Your task to perform on an android device: uninstall "Firefox Browser" Image 0: 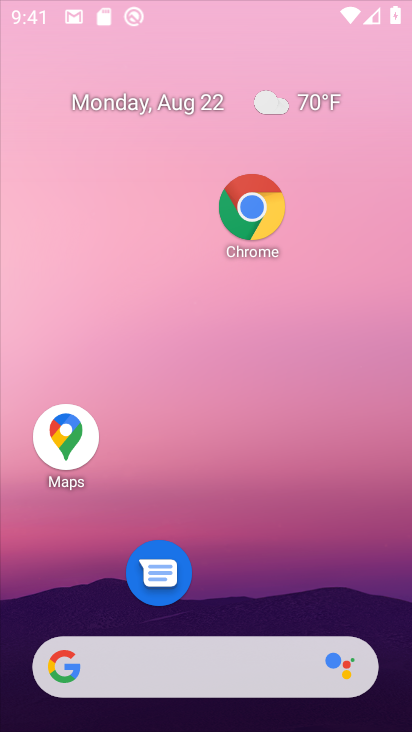
Step 0: drag from (297, 499) to (310, 288)
Your task to perform on an android device: uninstall "Firefox Browser" Image 1: 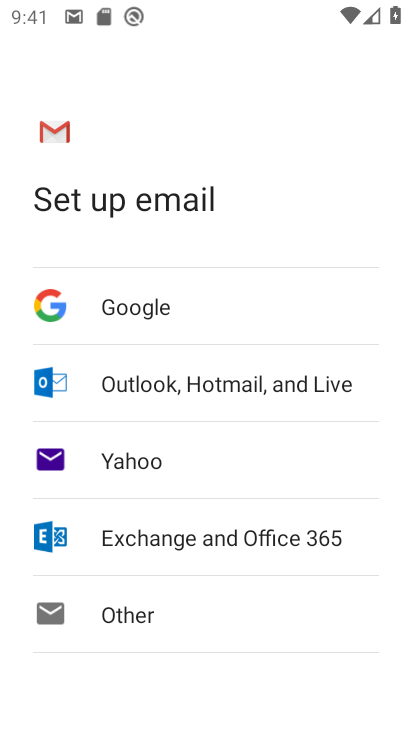
Step 1: press home button
Your task to perform on an android device: uninstall "Firefox Browser" Image 2: 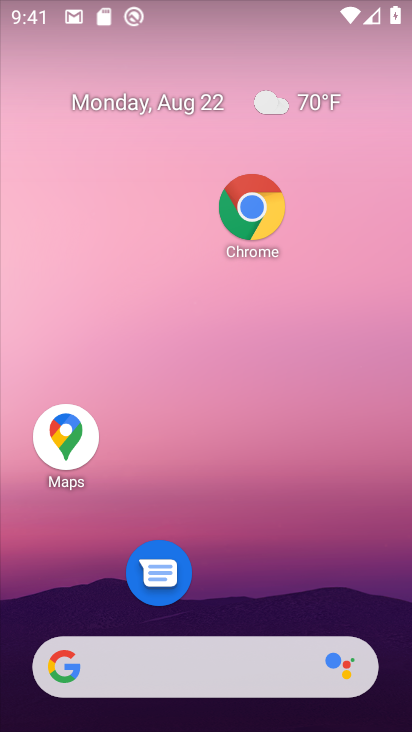
Step 2: drag from (262, 540) to (266, 126)
Your task to perform on an android device: uninstall "Firefox Browser" Image 3: 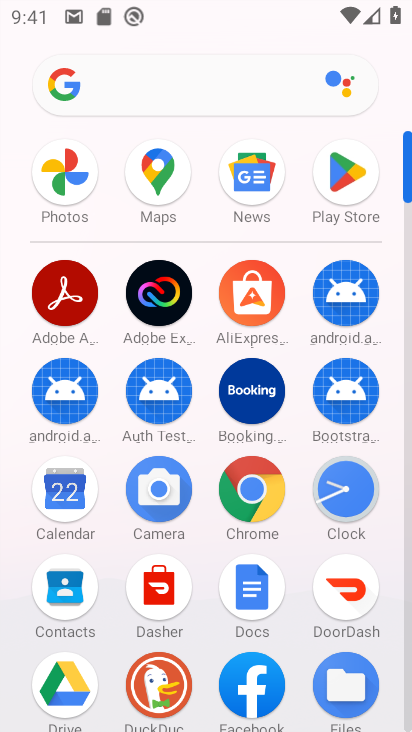
Step 3: click (345, 193)
Your task to perform on an android device: uninstall "Firefox Browser" Image 4: 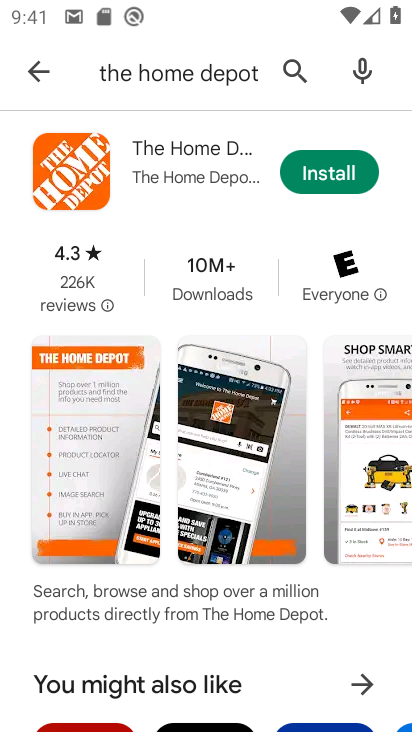
Step 4: click (197, 79)
Your task to perform on an android device: uninstall "Firefox Browser" Image 5: 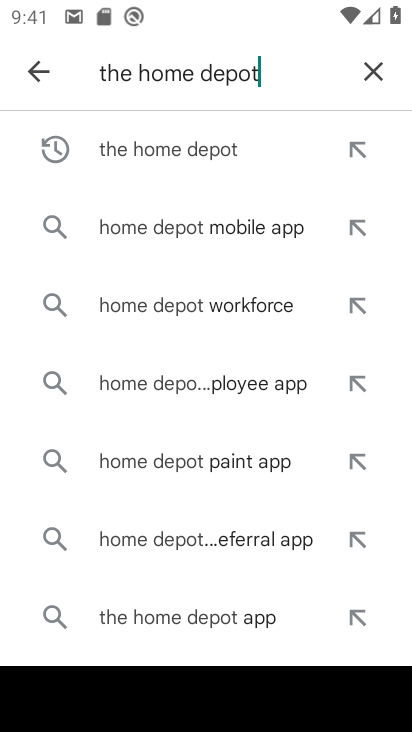
Step 5: click (365, 70)
Your task to perform on an android device: uninstall "Firefox Browser" Image 6: 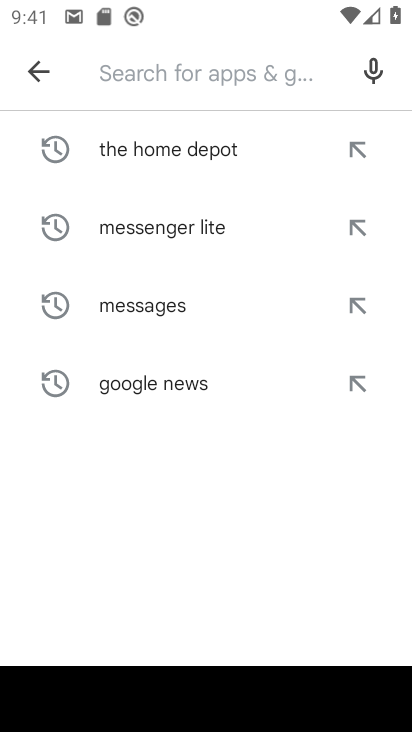
Step 6: type "firefox browser"
Your task to perform on an android device: uninstall "Firefox Browser" Image 7: 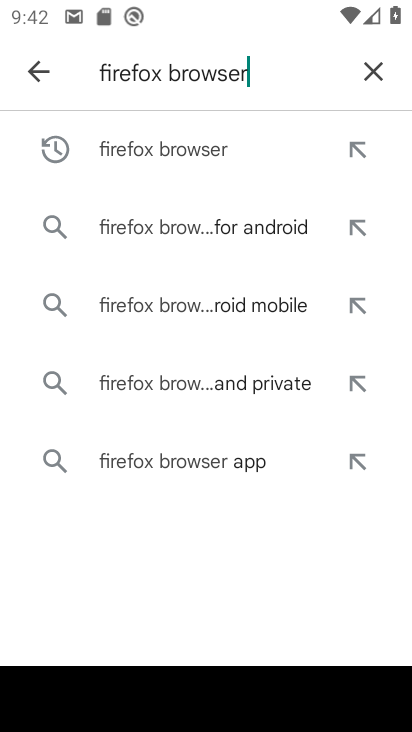
Step 7: click (164, 144)
Your task to perform on an android device: uninstall "Firefox Browser" Image 8: 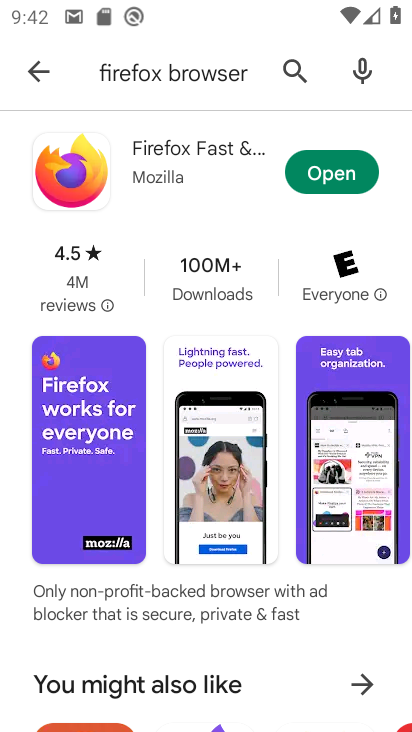
Step 8: click (90, 153)
Your task to perform on an android device: uninstall "Firefox Browser" Image 9: 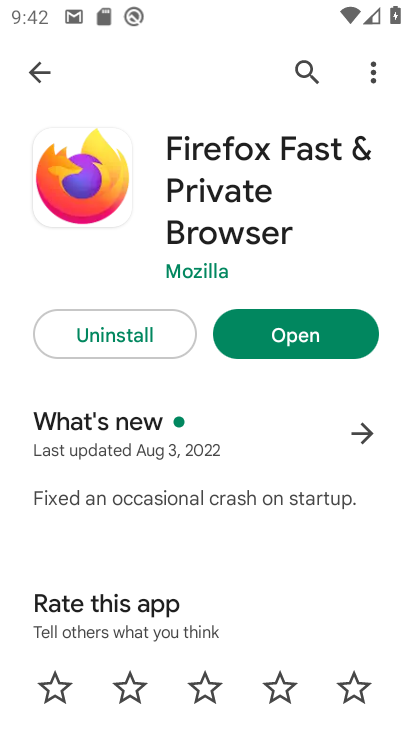
Step 9: click (133, 331)
Your task to perform on an android device: uninstall "Firefox Browser" Image 10: 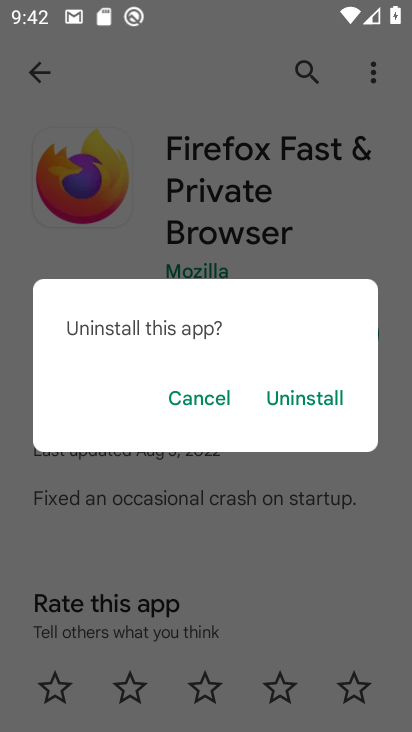
Step 10: click (309, 398)
Your task to perform on an android device: uninstall "Firefox Browser" Image 11: 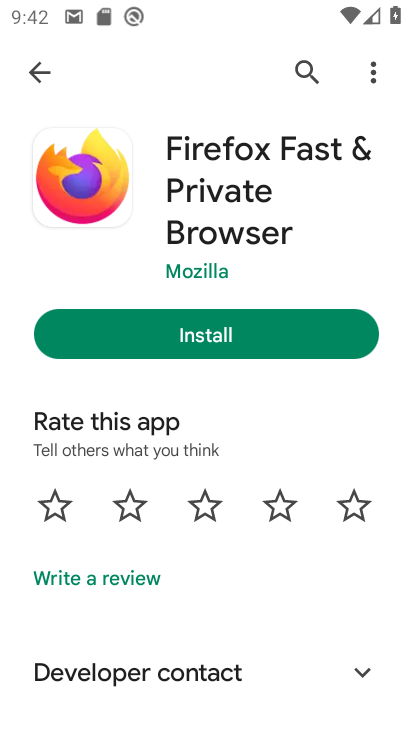
Step 11: task complete